Your task to perform on an android device: What's on my calendar today? Image 0: 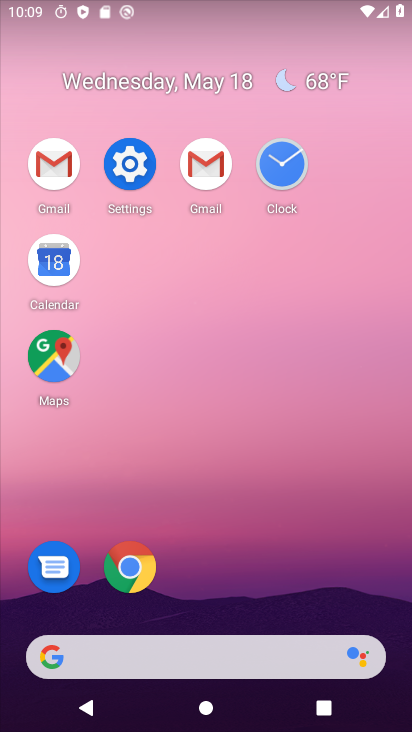
Step 0: click (71, 283)
Your task to perform on an android device: What's on my calendar today? Image 1: 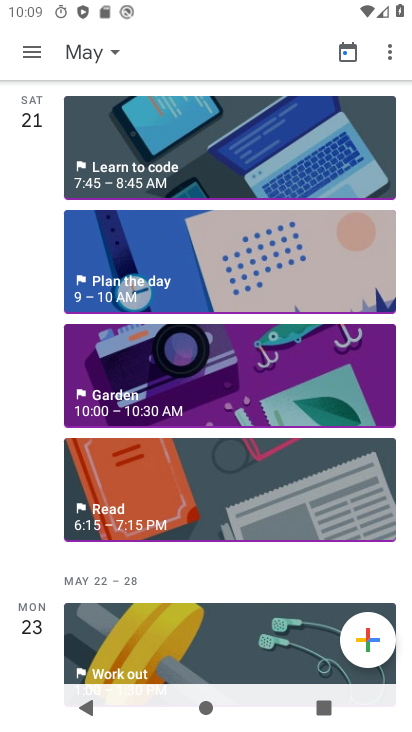
Step 1: drag from (50, 111) to (40, 608)
Your task to perform on an android device: What's on my calendar today? Image 2: 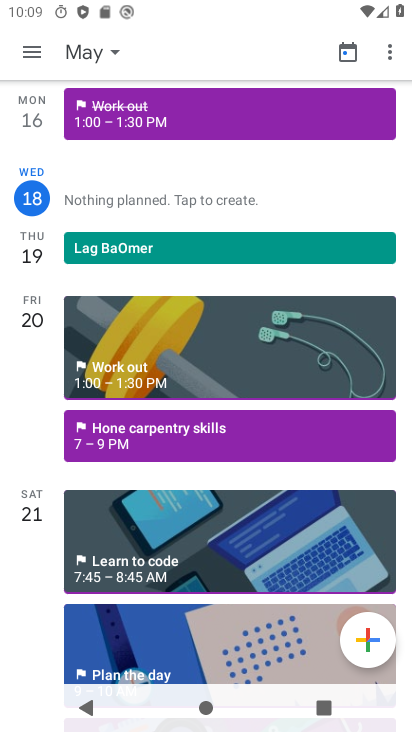
Step 2: click (30, 240)
Your task to perform on an android device: What's on my calendar today? Image 3: 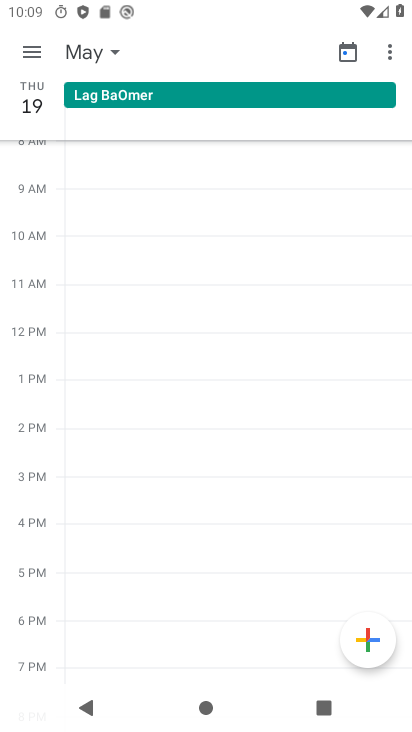
Step 3: task complete